Your task to perform on an android device: Open Chrome and go to the settings page Image 0: 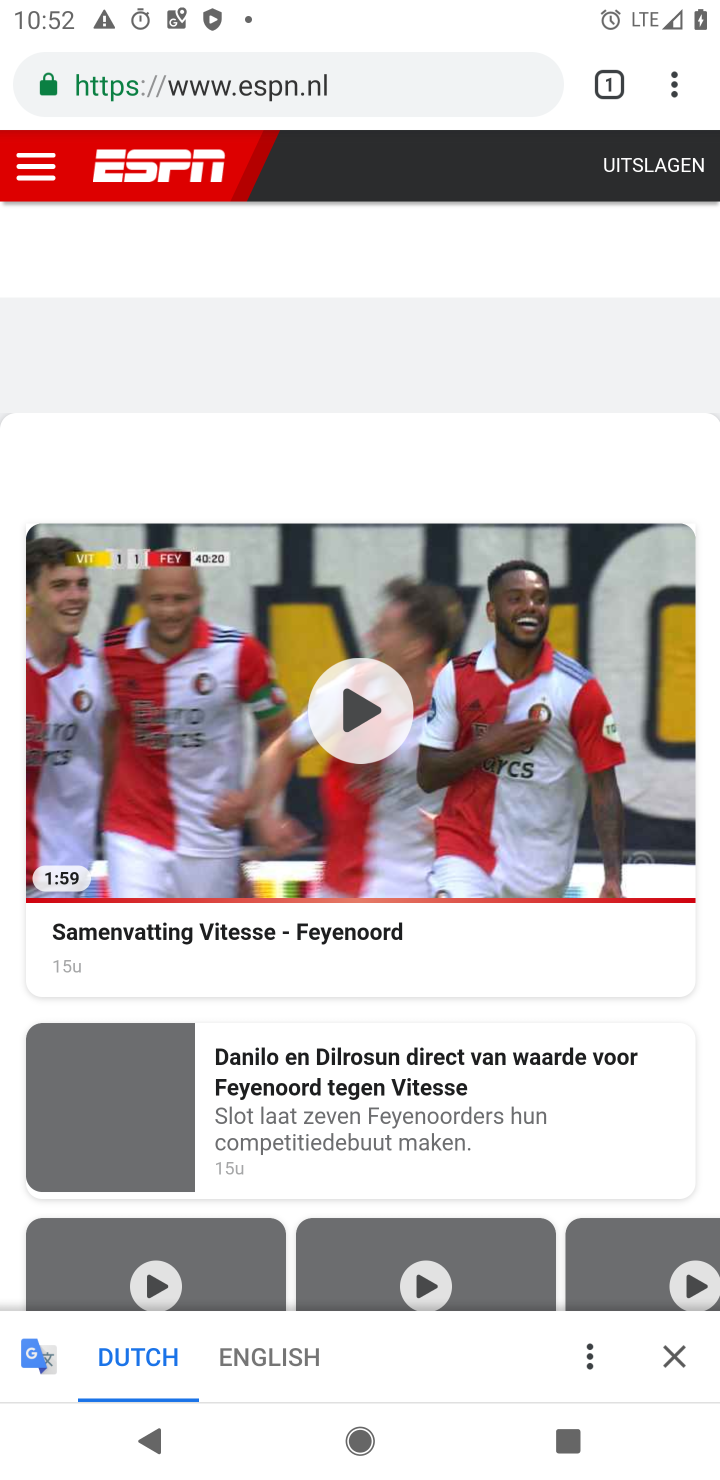
Step 0: press home button
Your task to perform on an android device: Open Chrome and go to the settings page Image 1: 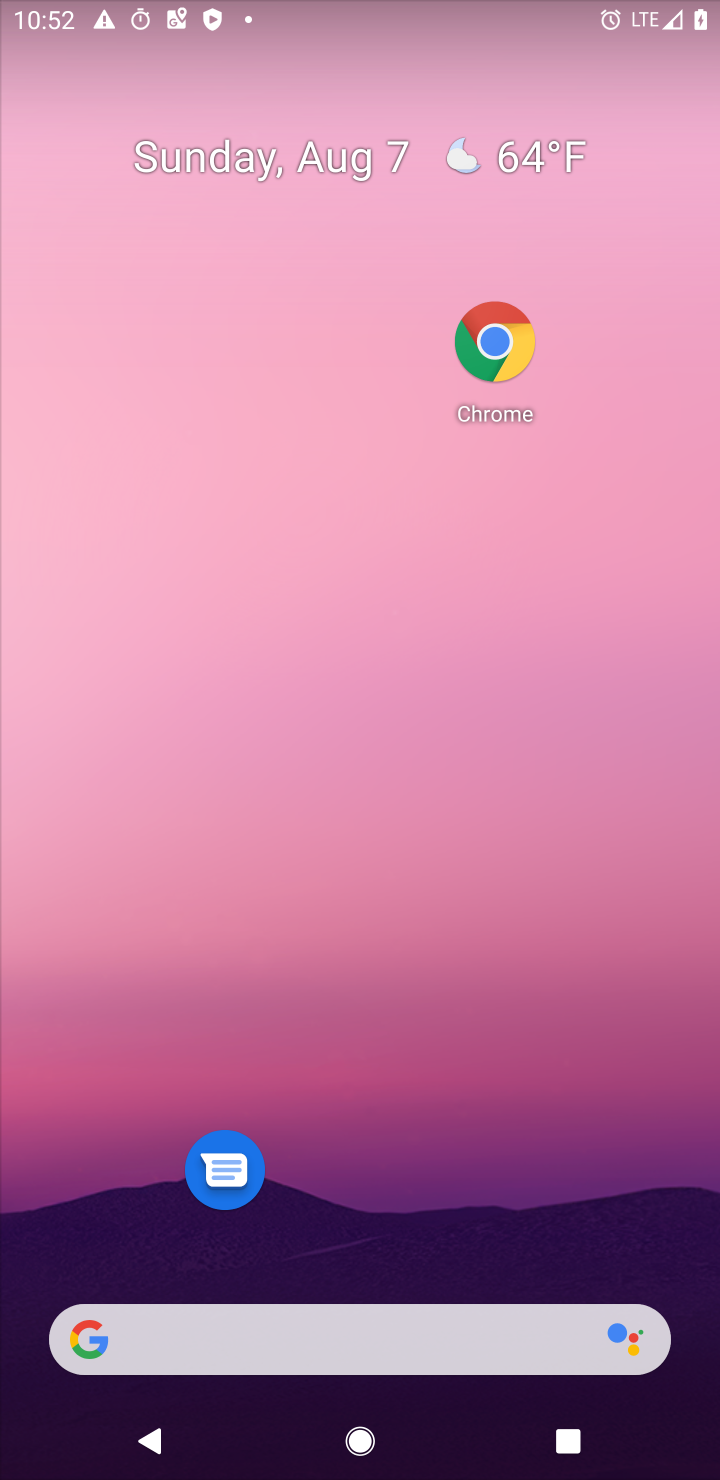
Step 1: drag from (499, 1350) to (530, 439)
Your task to perform on an android device: Open Chrome and go to the settings page Image 2: 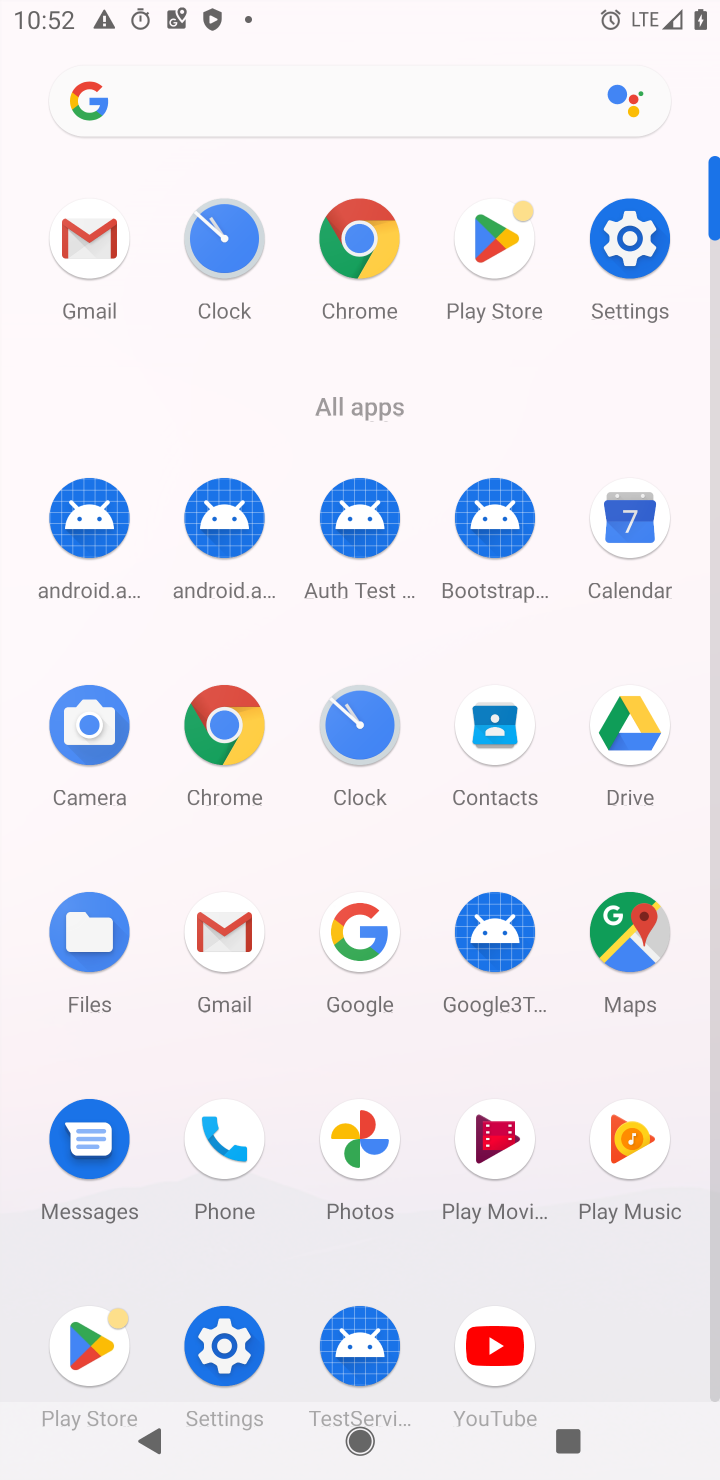
Step 2: click (212, 712)
Your task to perform on an android device: Open Chrome and go to the settings page Image 3: 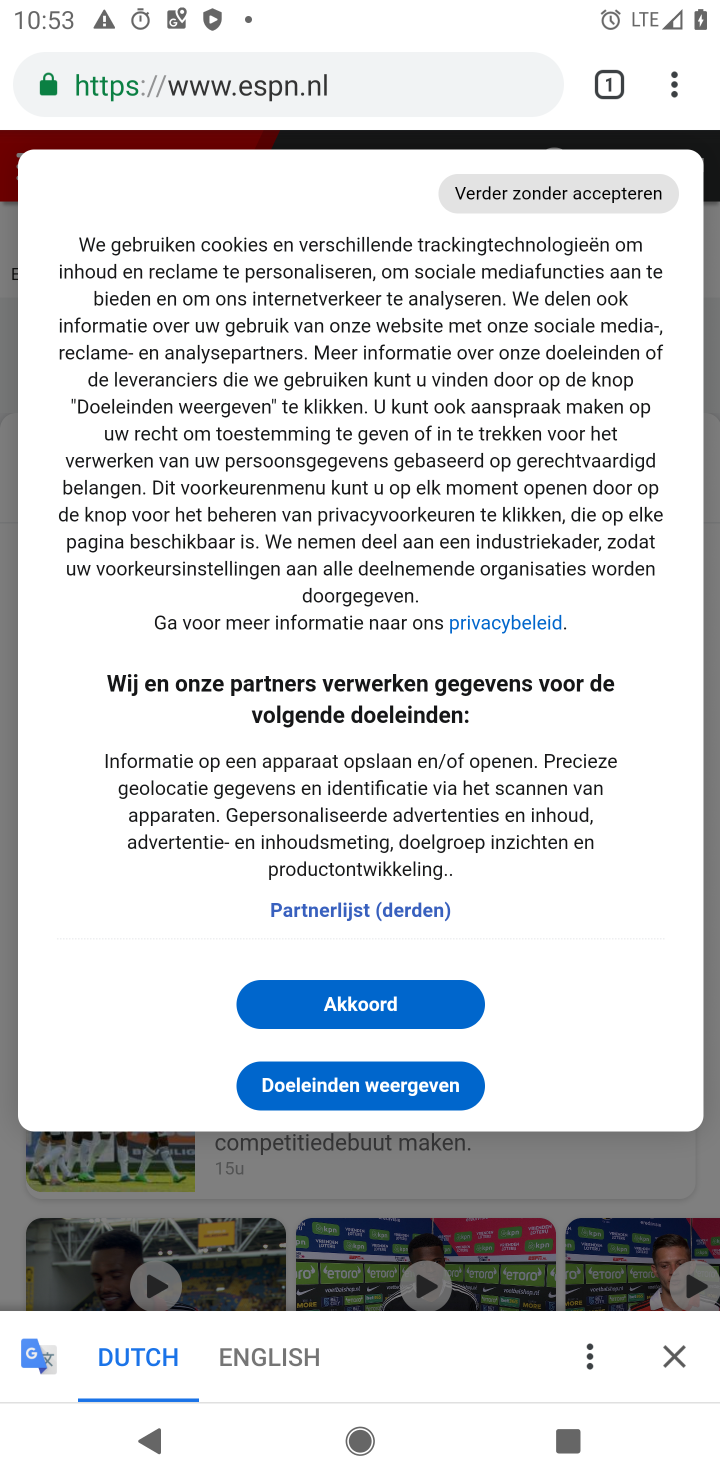
Step 3: click (680, 71)
Your task to perform on an android device: Open Chrome and go to the settings page Image 4: 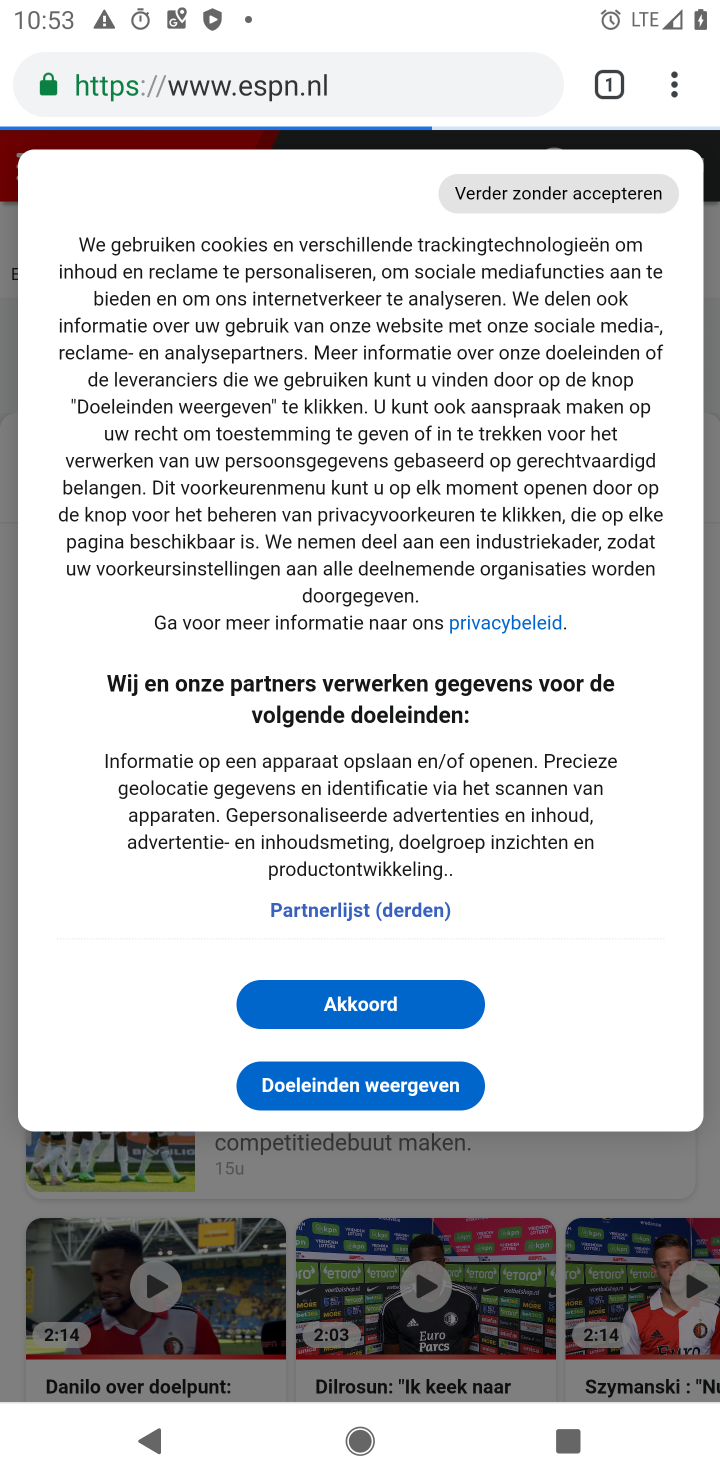
Step 4: drag from (672, 80) to (440, 1019)
Your task to perform on an android device: Open Chrome and go to the settings page Image 5: 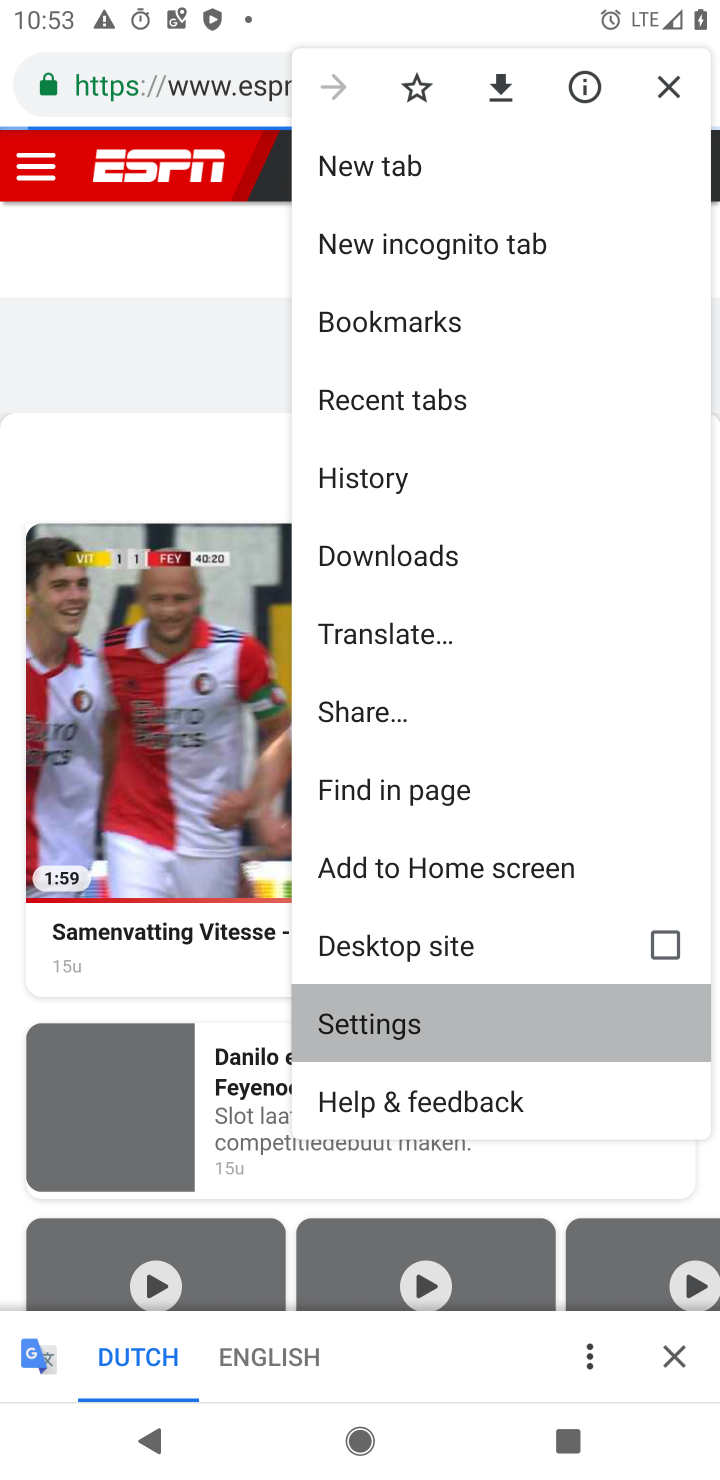
Step 5: click (440, 1019)
Your task to perform on an android device: Open Chrome and go to the settings page Image 6: 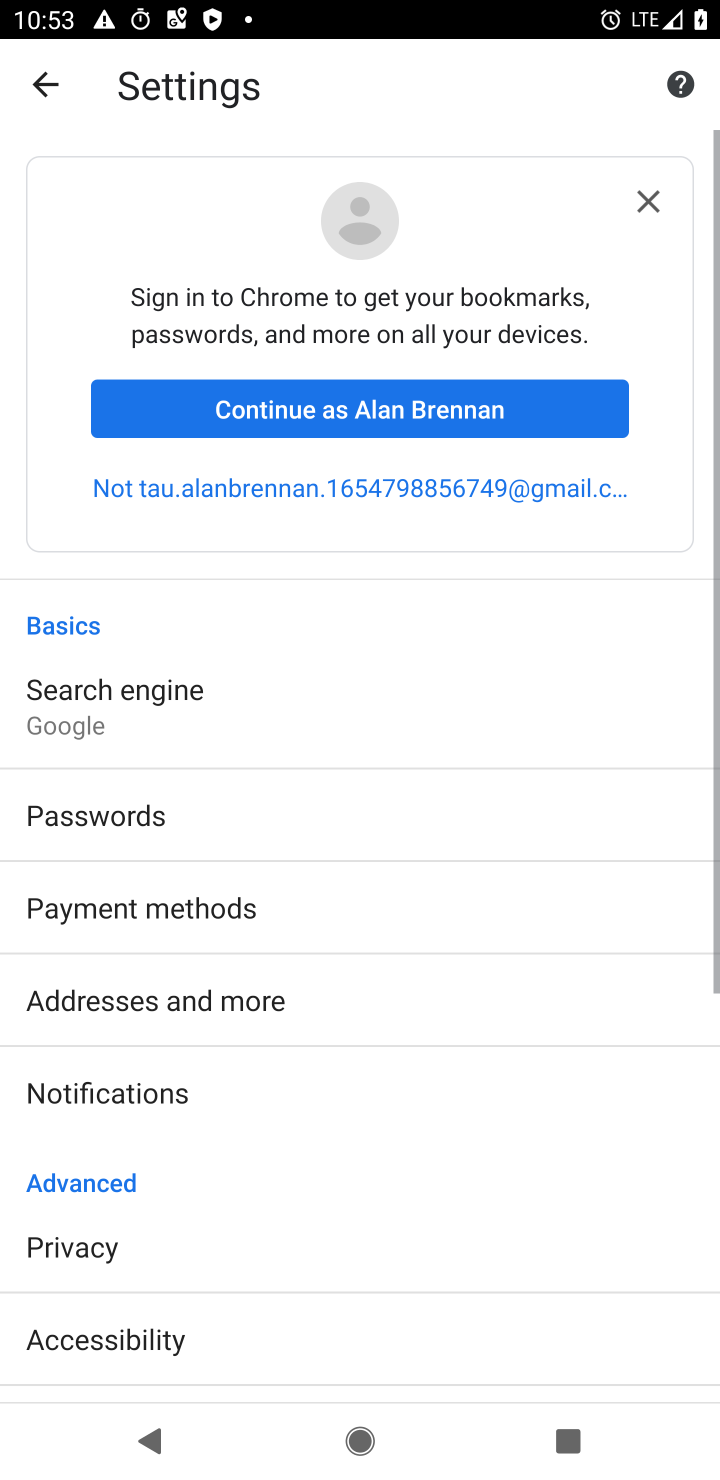
Step 6: task complete